Your task to perform on an android device: Open Chrome and go to settings Image 0: 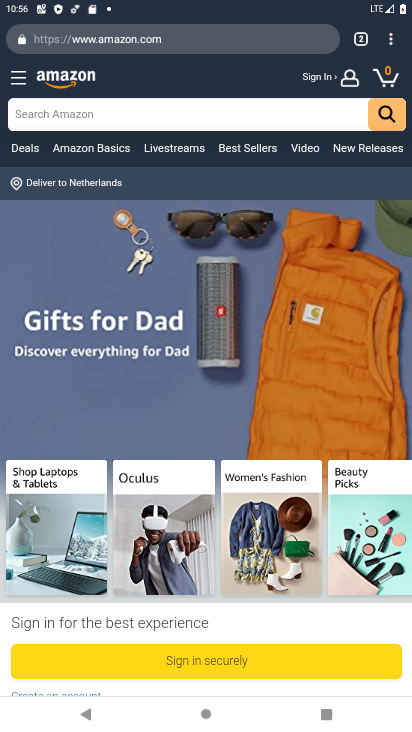
Step 0: click (391, 46)
Your task to perform on an android device: Open Chrome and go to settings Image 1: 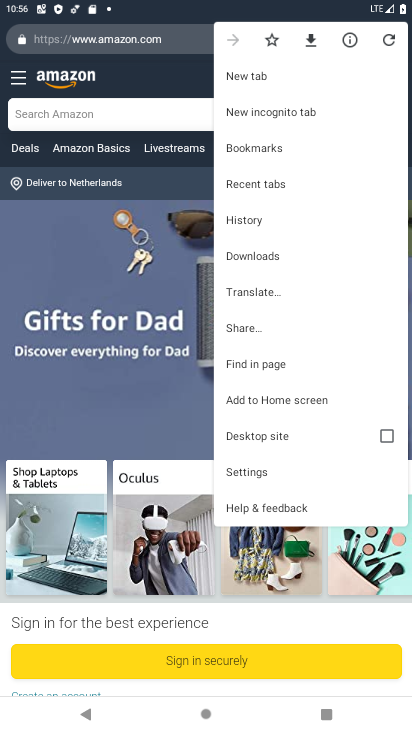
Step 1: click (249, 471)
Your task to perform on an android device: Open Chrome and go to settings Image 2: 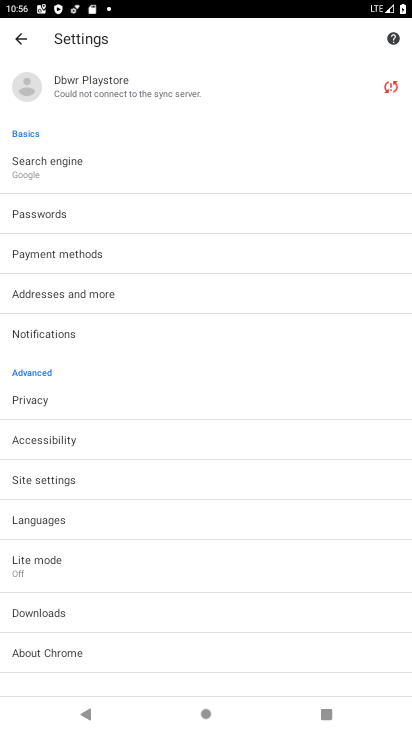
Step 2: task complete